Your task to perform on an android device: When is my next meeting? Image 0: 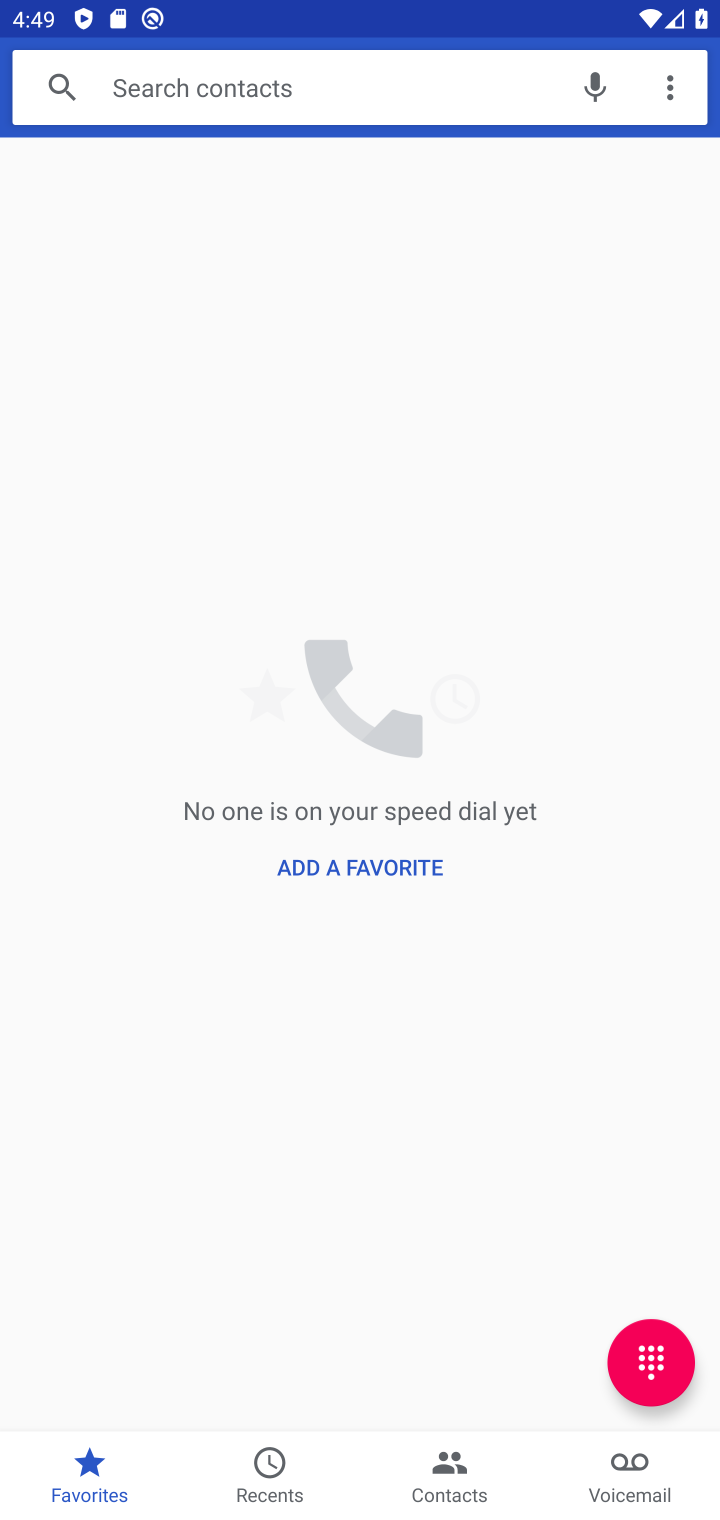
Step 0: press back button
Your task to perform on an android device: When is my next meeting? Image 1: 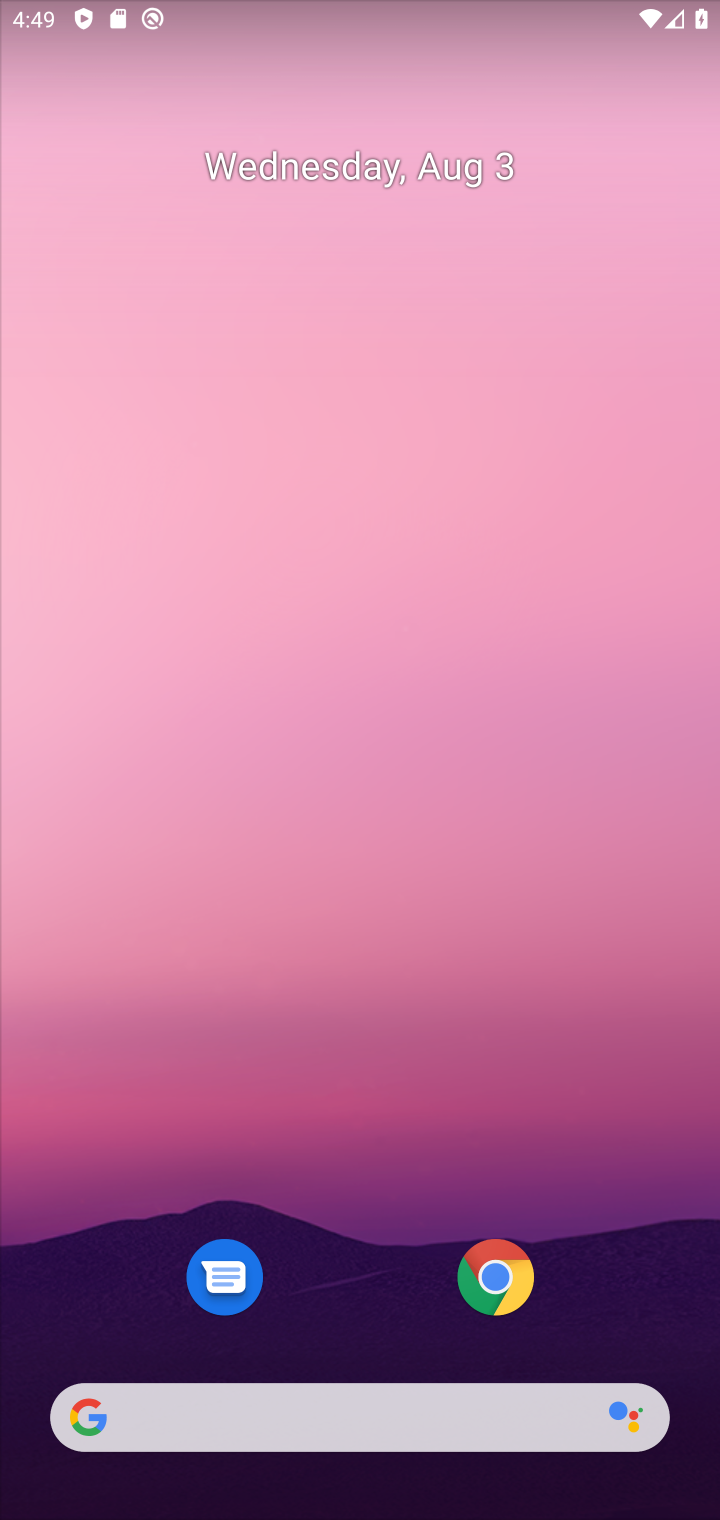
Step 1: drag from (123, 1323) to (247, 10)
Your task to perform on an android device: When is my next meeting? Image 2: 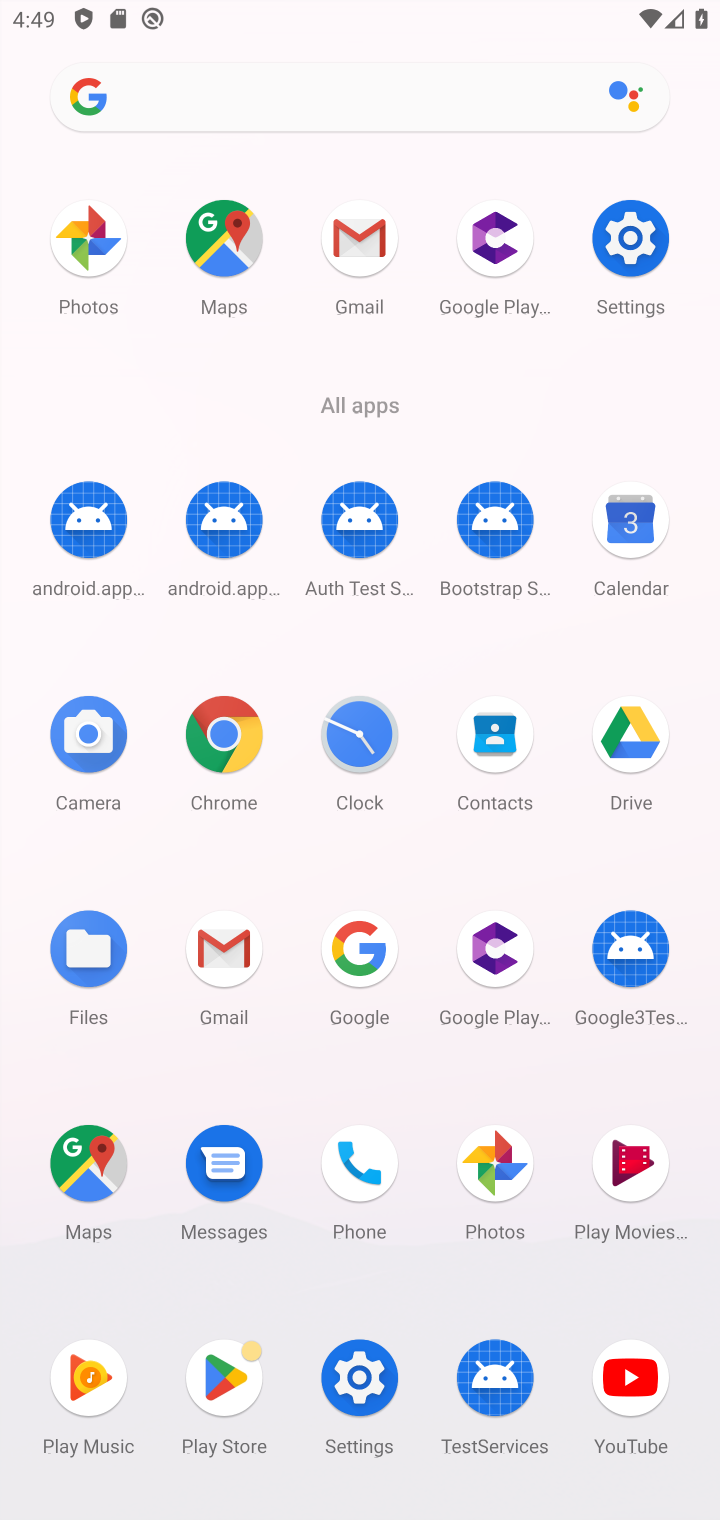
Step 2: click (629, 543)
Your task to perform on an android device: When is my next meeting? Image 3: 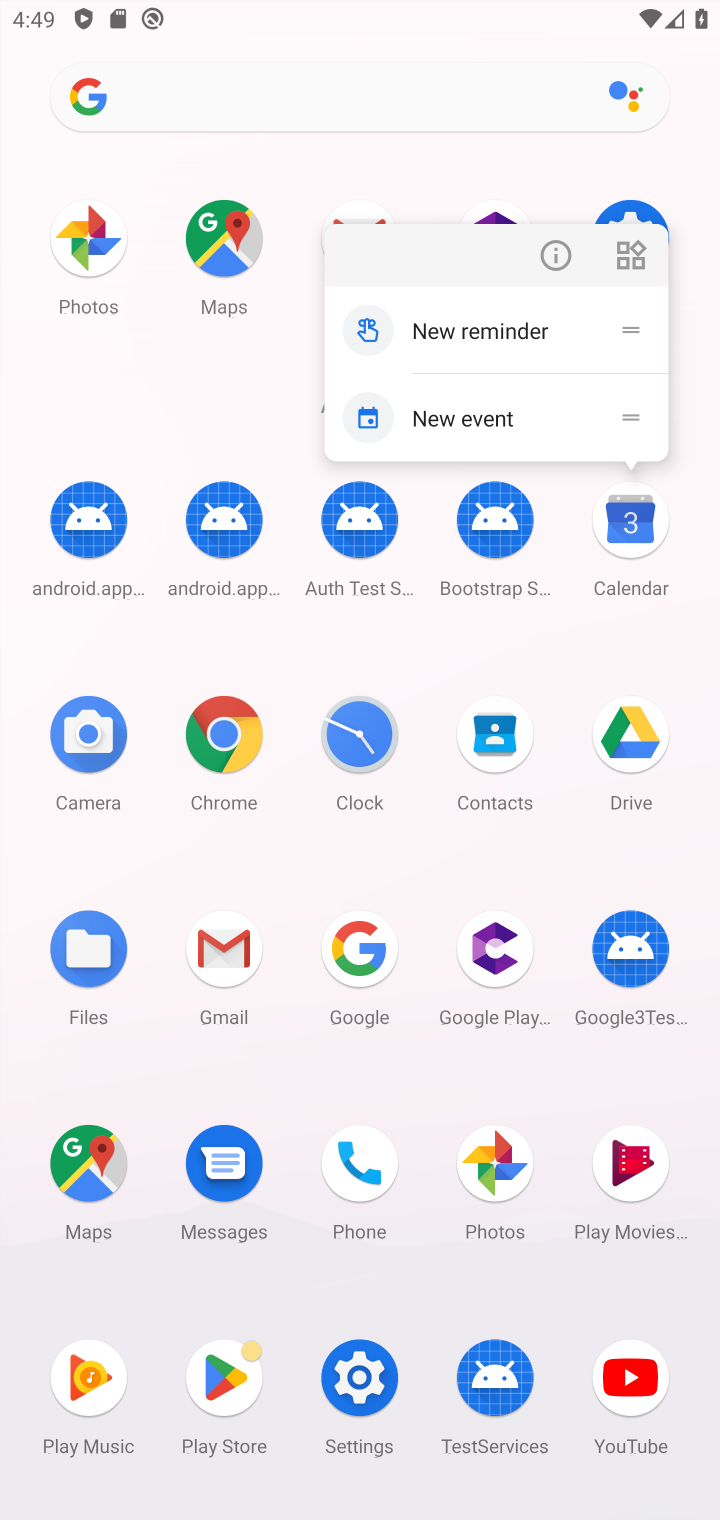
Step 3: click (623, 535)
Your task to perform on an android device: When is my next meeting? Image 4: 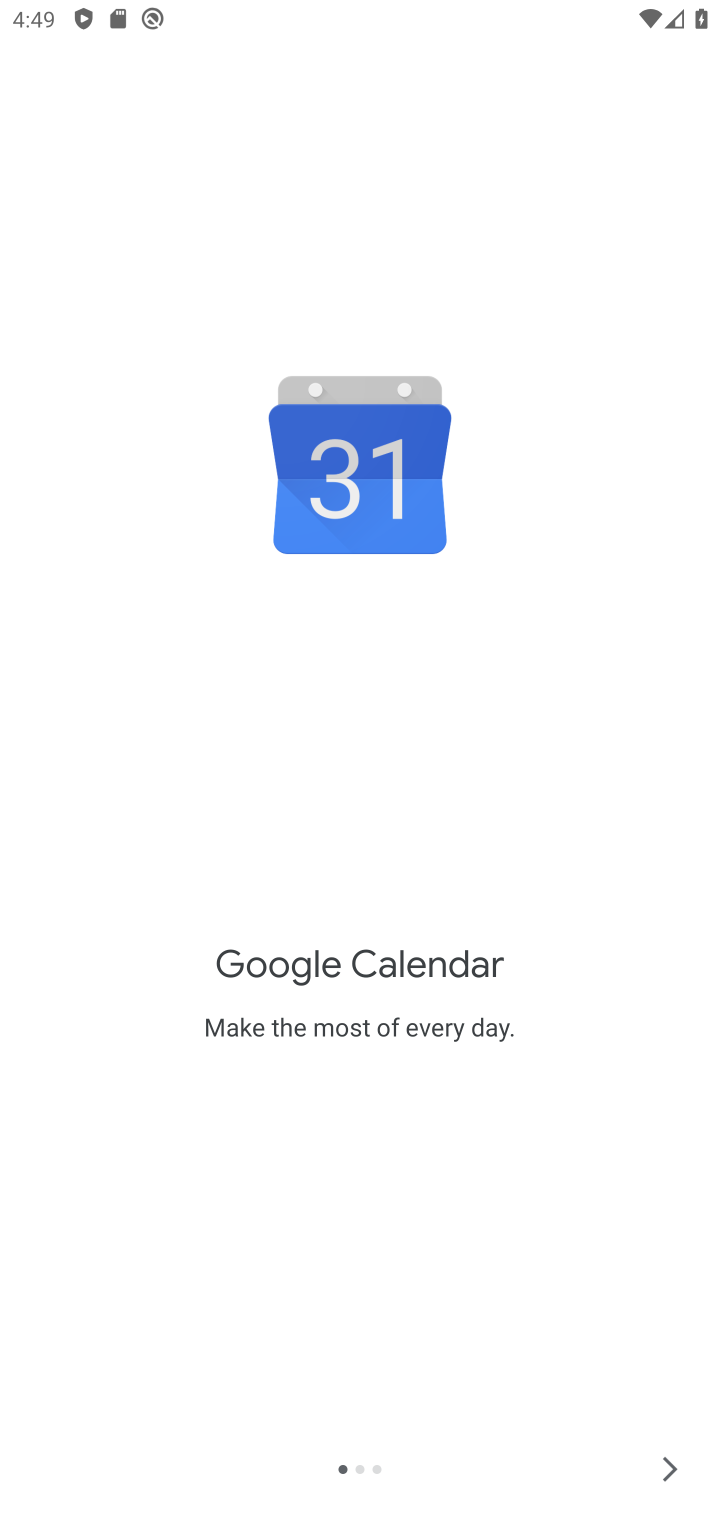
Step 4: click (664, 1460)
Your task to perform on an android device: When is my next meeting? Image 5: 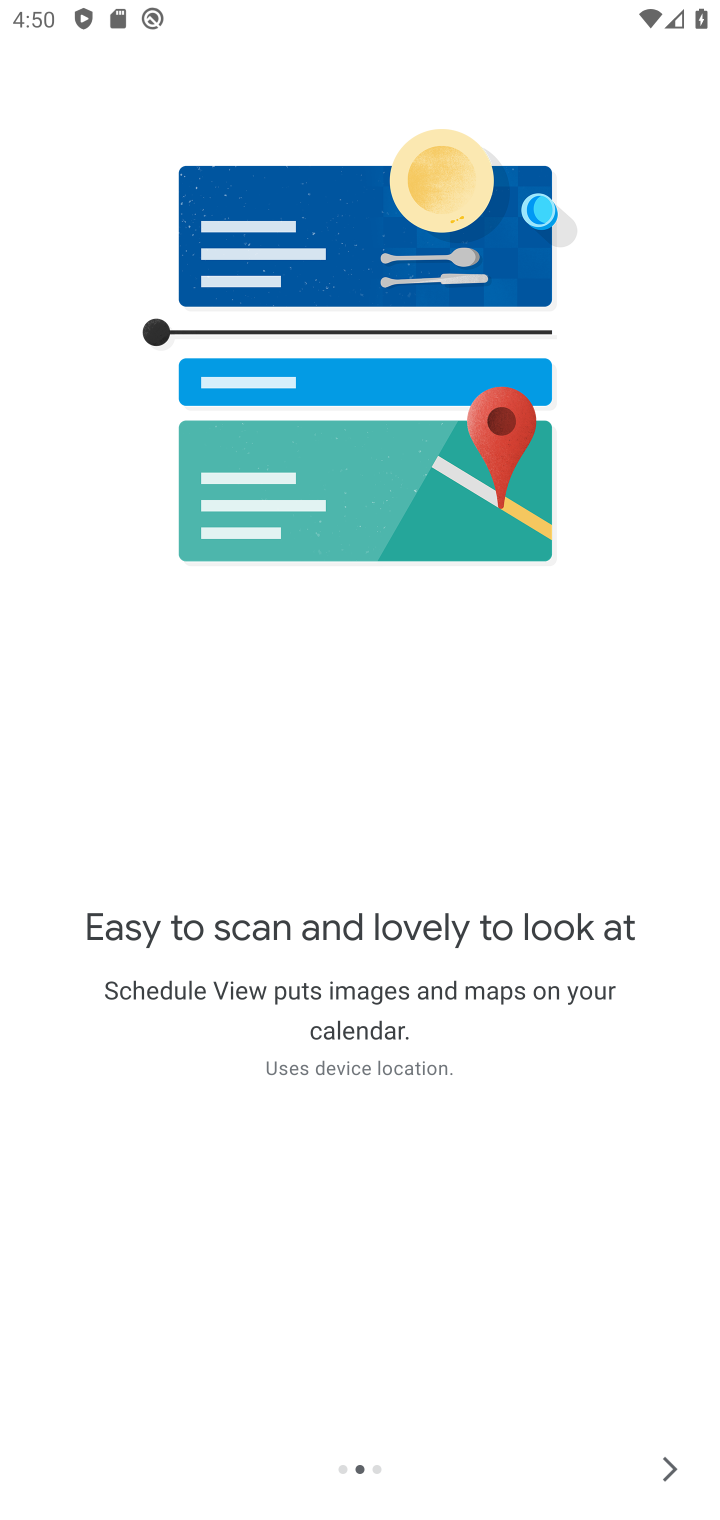
Step 5: click (682, 1443)
Your task to perform on an android device: When is my next meeting? Image 6: 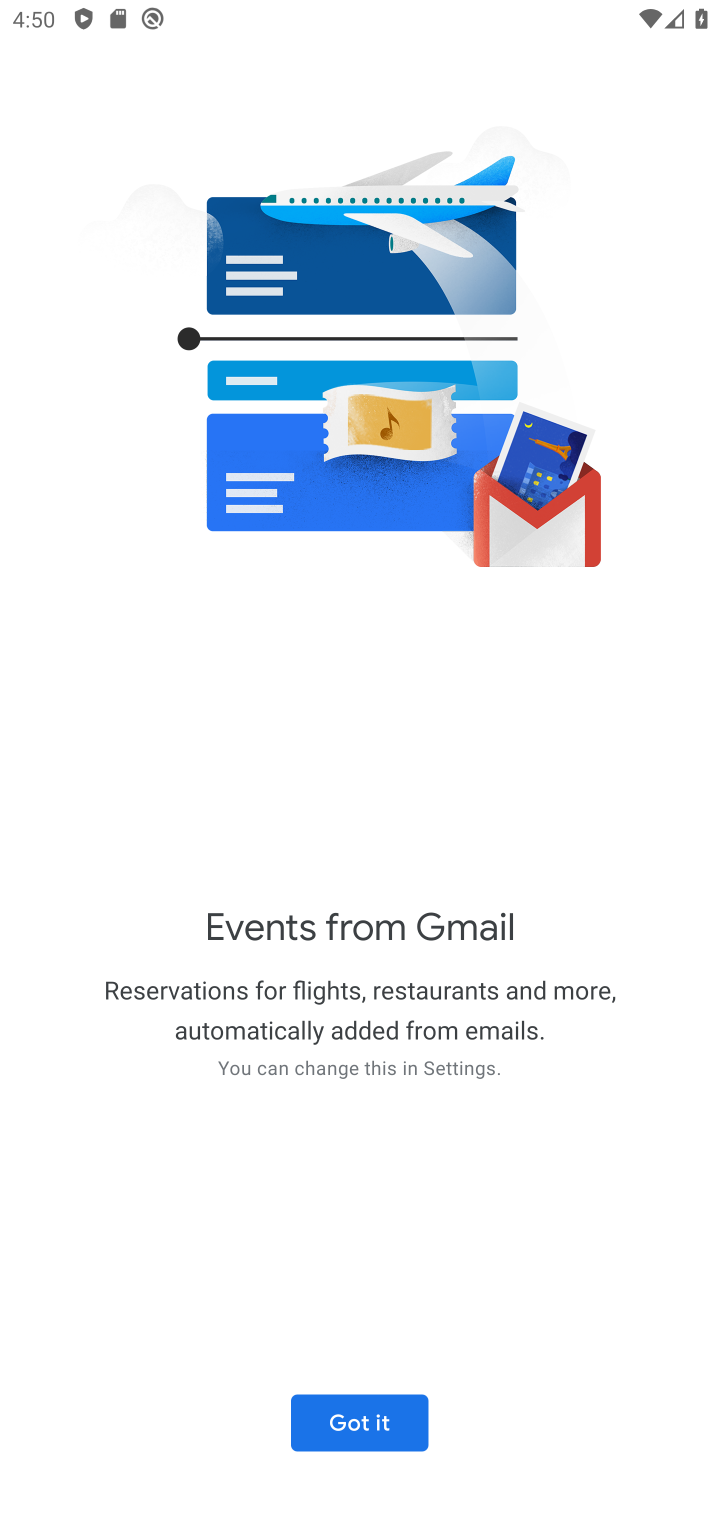
Step 6: click (327, 1435)
Your task to perform on an android device: When is my next meeting? Image 7: 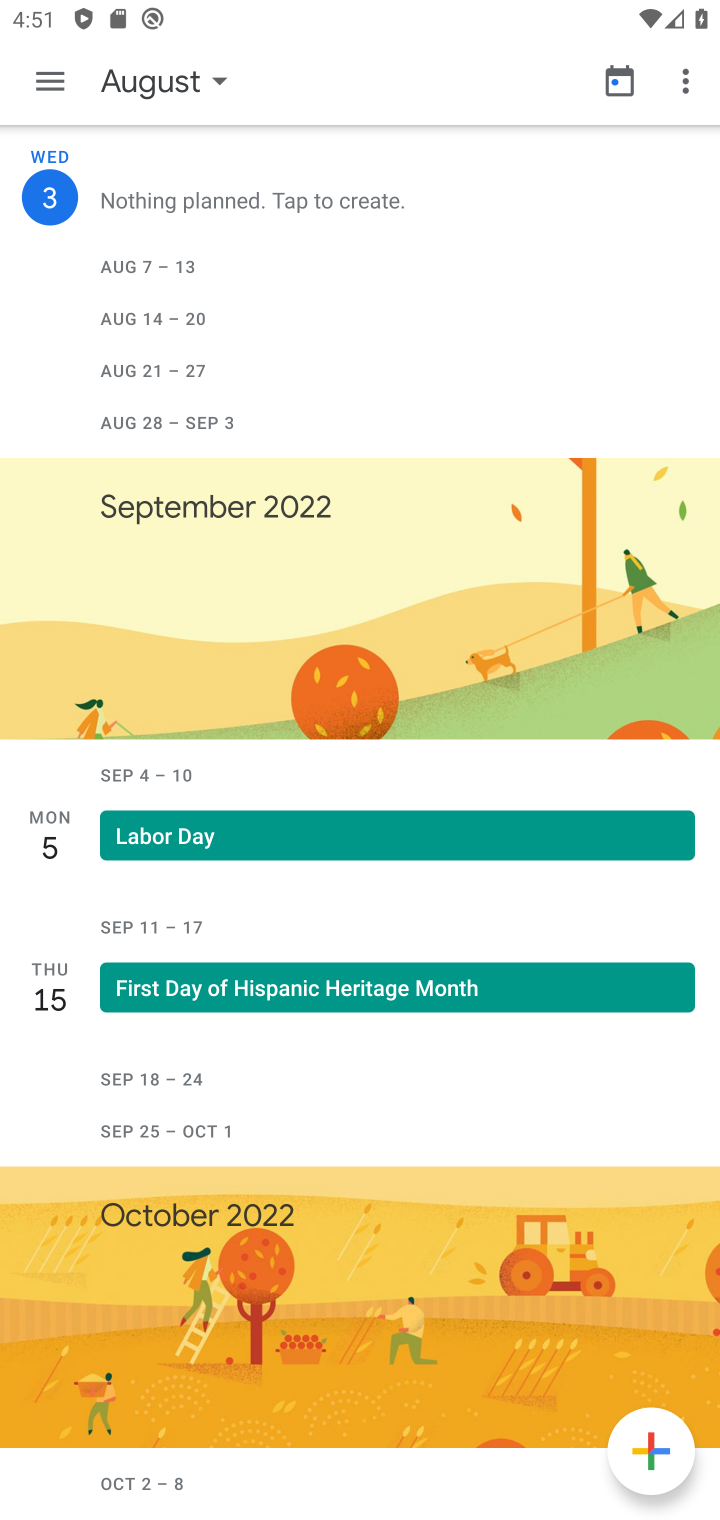
Step 7: task complete